Your task to perform on an android device: Do I have any events tomorrow? Image 0: 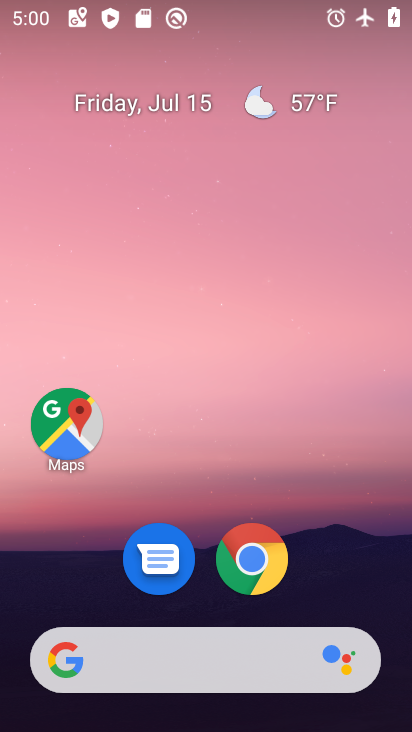
Step 0: drag from (93, 519) to (256, 9)
Your task to perform on an android device: Do I have any events tomorrow? Image 1: 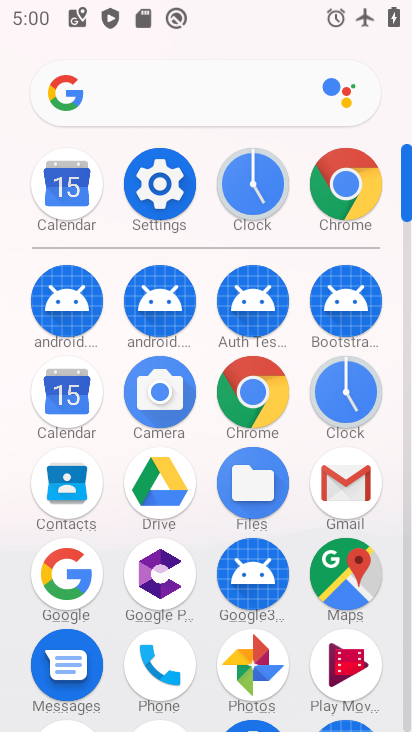
Step 1: click (70, 203)
Your task to perform on an android device: Do I have any events tomorrow? Image 2: 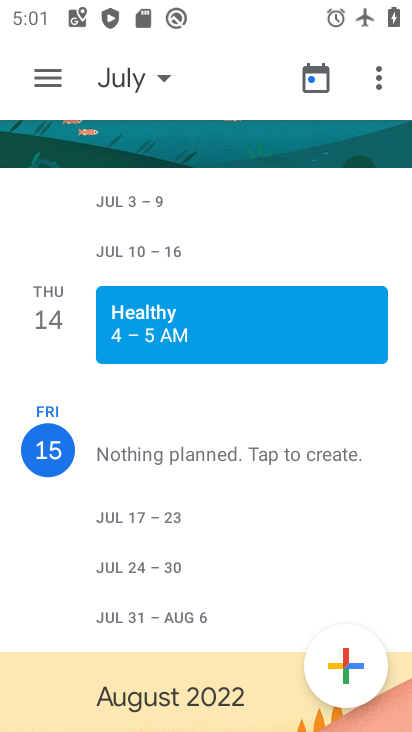
Step 2: task complete